Your task to perform on an android device: When is my next appointment? Image 0: 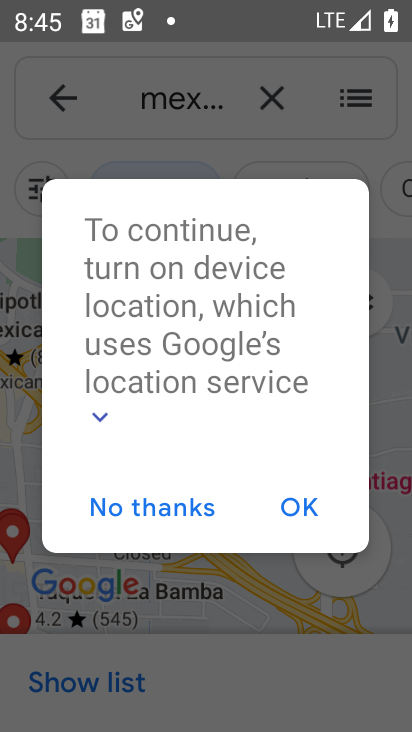
Step 0: press back button
Your task to perform on an android device: When is my next appointment? Image 1: 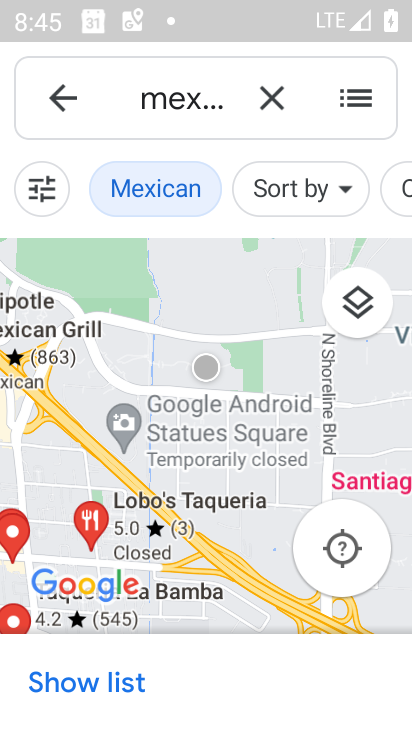
Step 1: press back button
Your task to perform on an android device: When is my next appointment? Image 2: 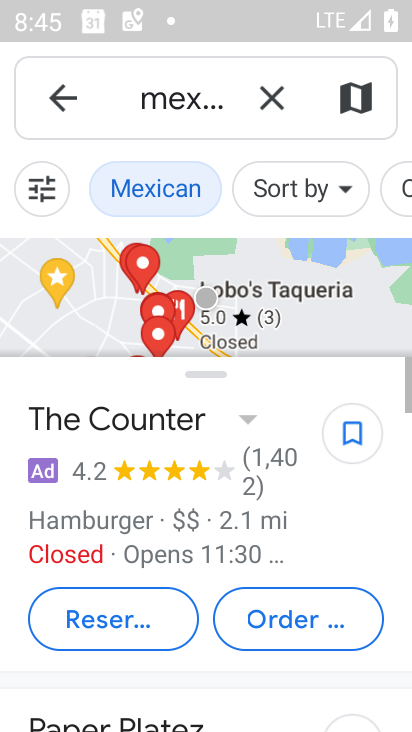
Step 2: press back button
Your task to perform on an android device: When is my next appointment? Image 3: 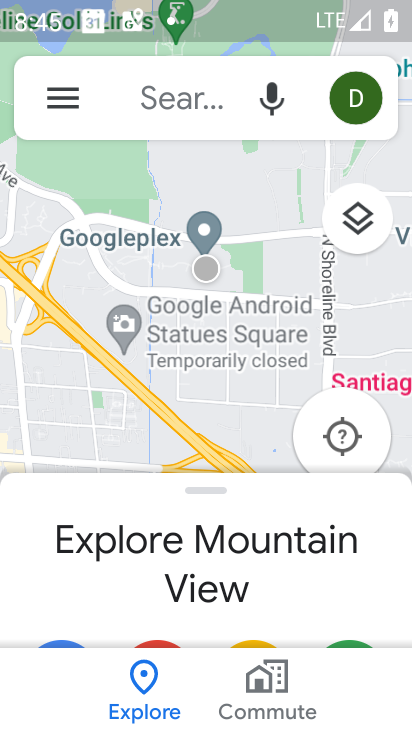
Step 3: press home button
Your task to perform on an android device: When is my next appointment? Image 4: 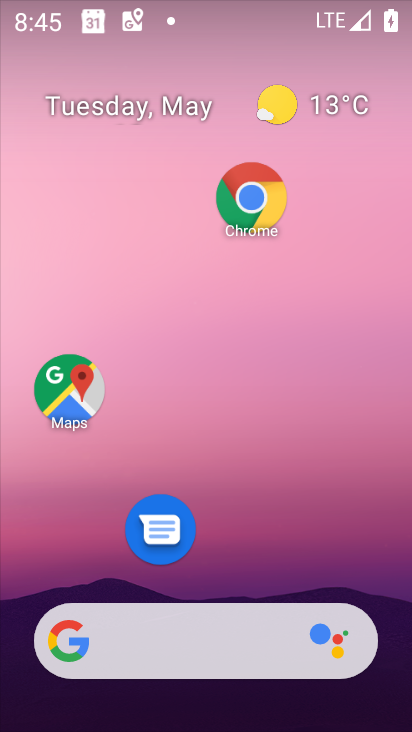
Step 4: drag from (245, 558) to (318, 177)
Your task to perform on an android device: When is my next appointment? Image 5: 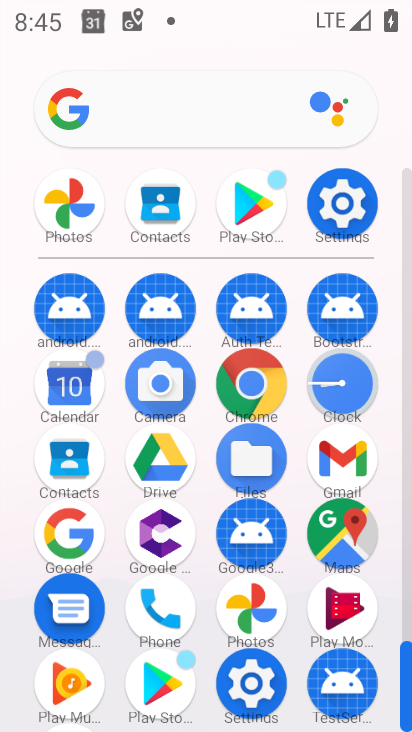
Step 5: click (163, 219)
Your task to perform on an android device: When is my next appointment? Image 6: 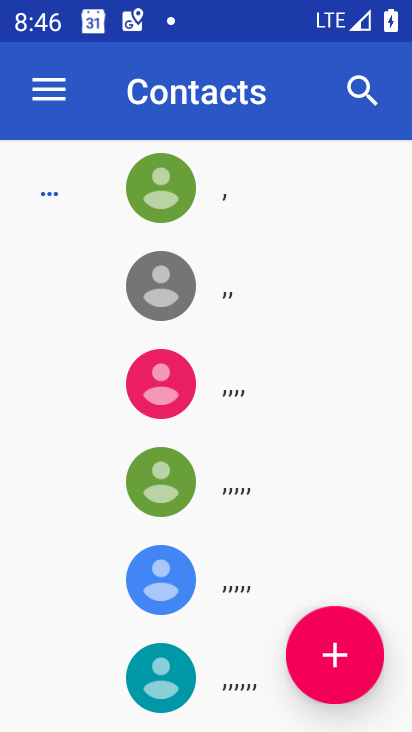
Step 6: press home button
Your task to perform on an android device: When is my next appointment? Image 7: 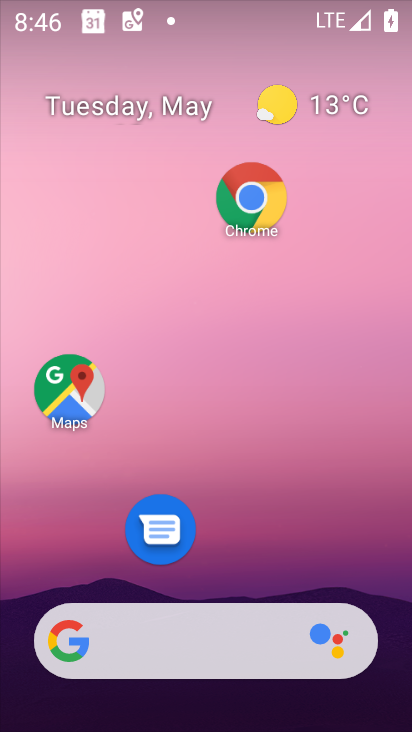
Step 7: drag from (259, 563) to (227, 131)
Your task to perform on an android device: When is my next appointment? Image 8: 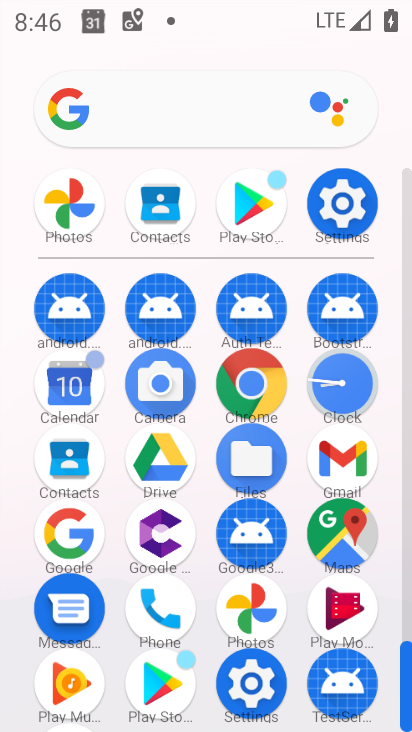
Step 8: click (165, 195)
Your task to perform on an android device: When is my next appointment? Image 9: 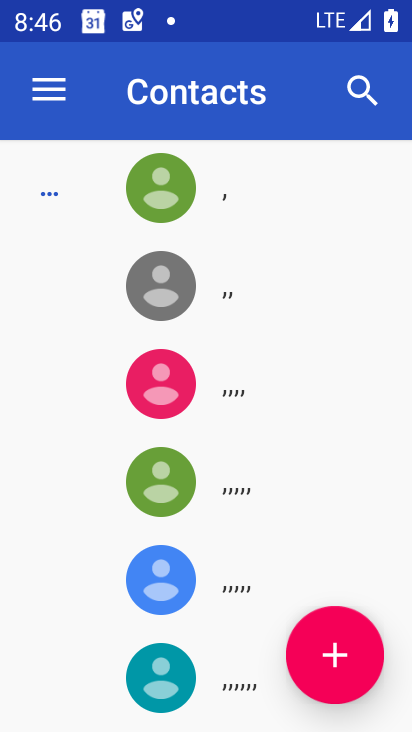
Step 9: press home button
Your task to perform on an android device: When is my next appointment? Image 10: 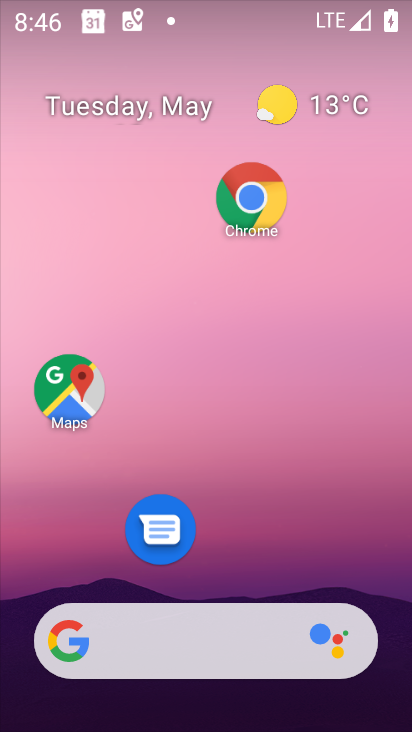
Step 10: drag from (294, 563) to (288, 95)
Your task to perform on an android device: When is my next appointment? Image 11: 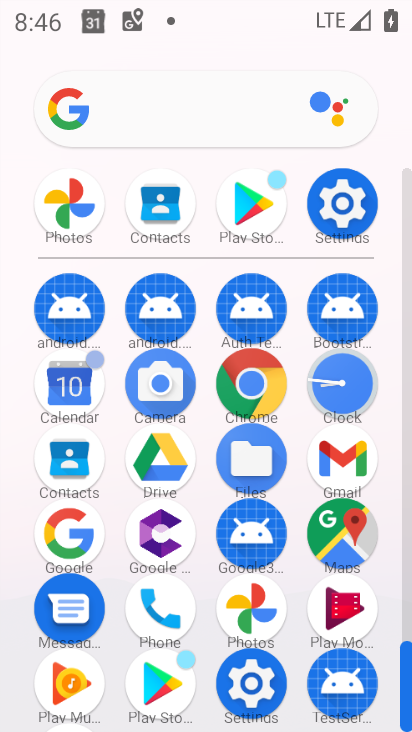
Step 11: click (87, 401)
Your task to perform on an android device: When is my next appointment? Image 12: 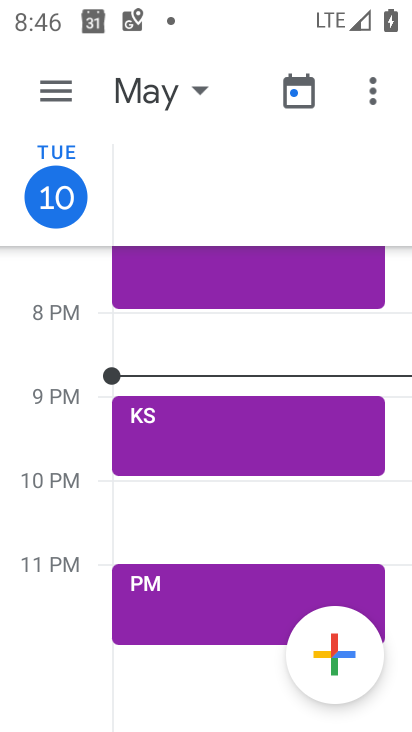
Step 12: task complete